Your task to perform on an android device: What is the recent news? Image 0: 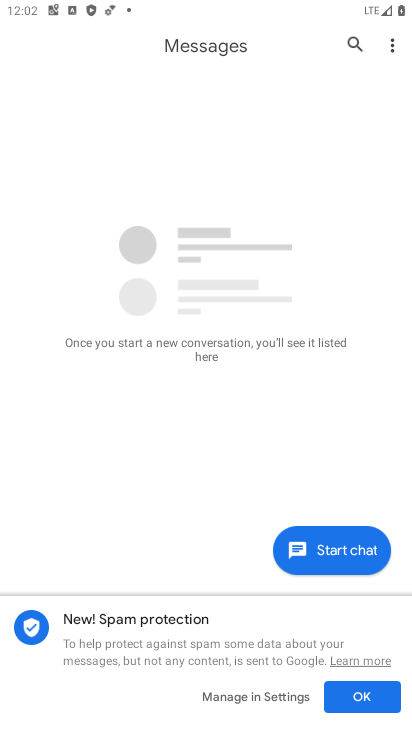
Step 0: press home button
Your task to perform on an android device: What is the recent news? Image 1: 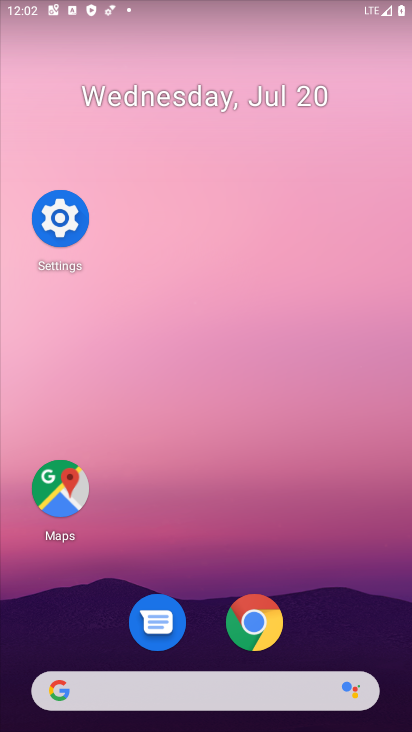
Step 1: drag from (308, 634) to (371, 258)
Your task to perform on an android device: What is the recent news? Image 2: 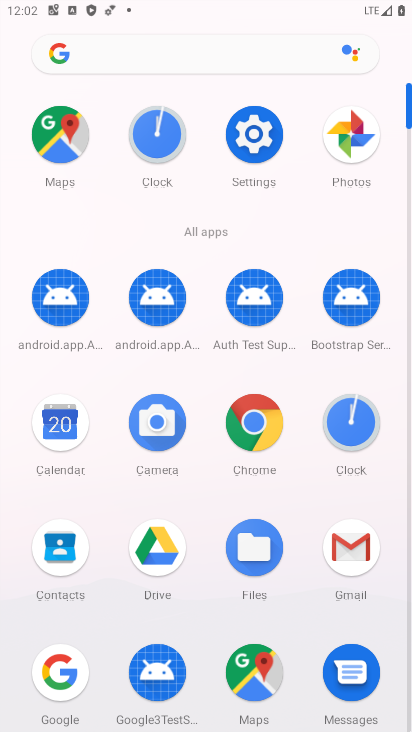
Step 2: drag from (47, 671) to (142, 248)
Your task to perform on an android device: What is the recent news? Image 3: 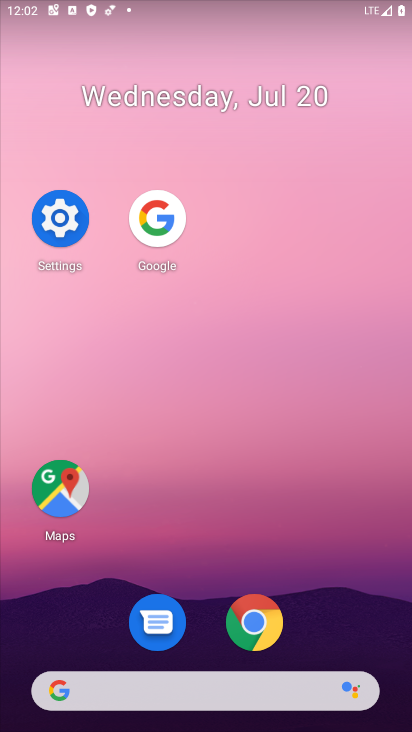
Step 3: click (162, 224)
Your task to perform on an android device: What is the recent news? Image 4: 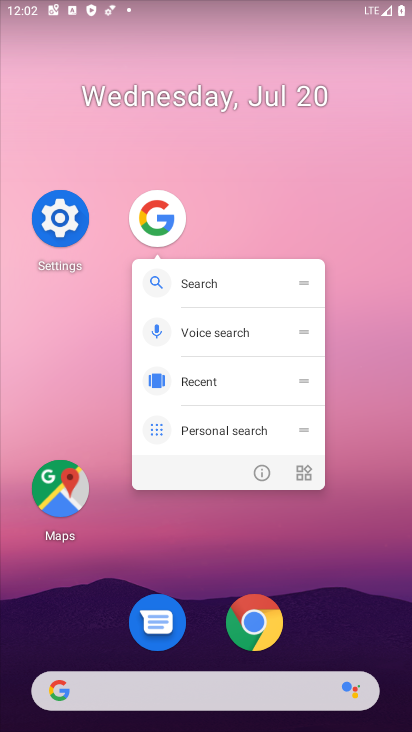
Step 4: click (175, 251)
Your task to perform on an android device: What is the recent news? Image 5: 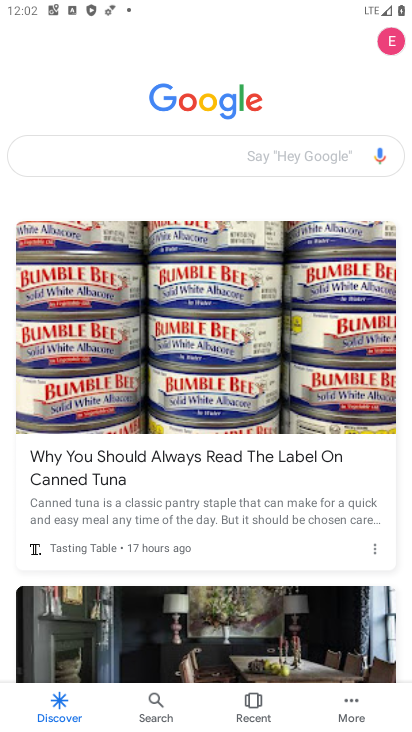
Step 5: click (98, 168)
Your task to perform on an android device: What is the recent news? Image 6: 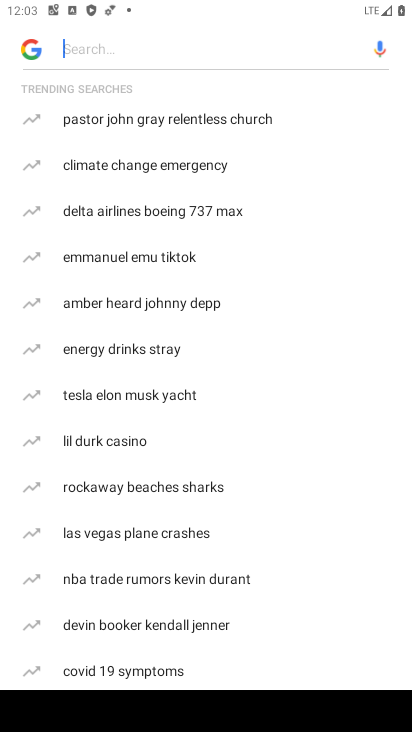
Step 6: type "recent news"
Your task to perform on an android device: What is the recent news? Image 7: 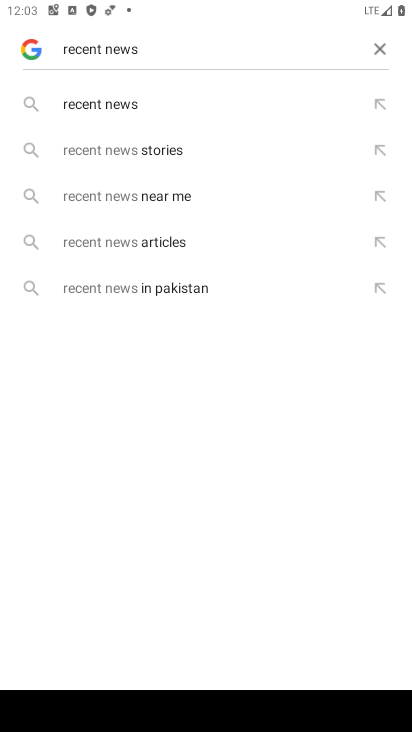
Step 7: click (90, 111)
Your task to perform on an android device: What is the recent news? Image 8: 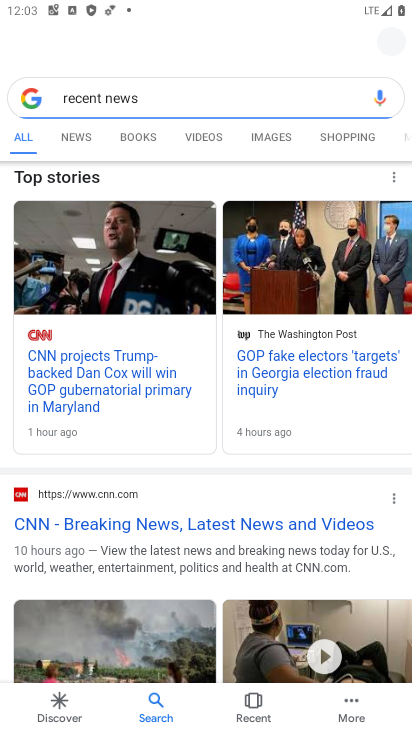
Step 8: task complete